Your task to perform on an android device: Open notification settings Image 0: 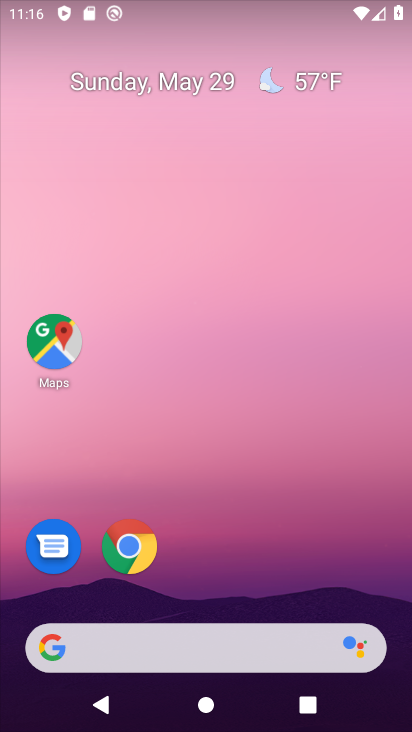
Step 0: press home button
Your task to perform on an android device: Open notification settings Image 1: 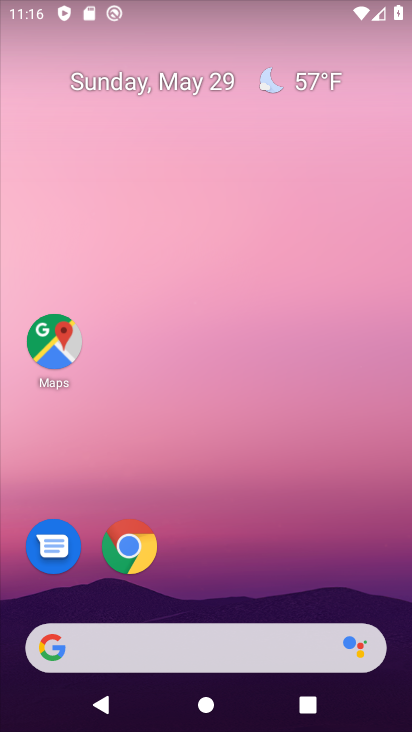
Step 1: drag from (131, 661) to (371, 8)
Your task to perform on an android device: Open notification settings Image 2: 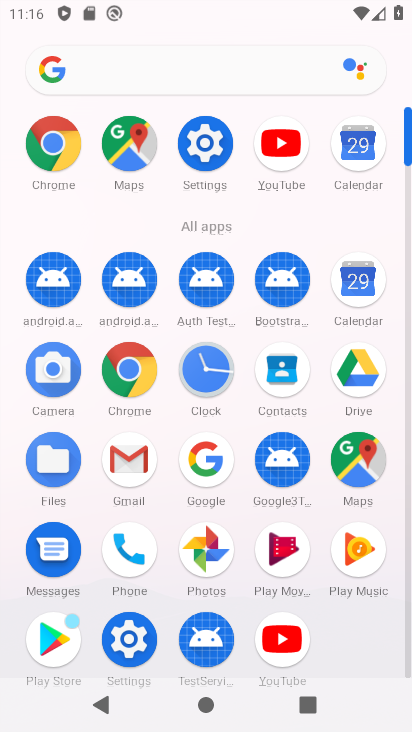
Step 2: click (208, 150)
Your task to perform on an android device: Open notification settings Image 3: 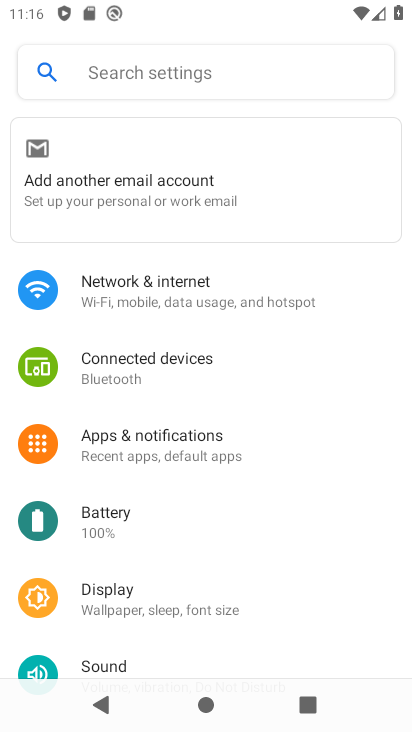
Step 3: click (197, 447)
Your task to perform on an android device: Open notification settings Image 4: 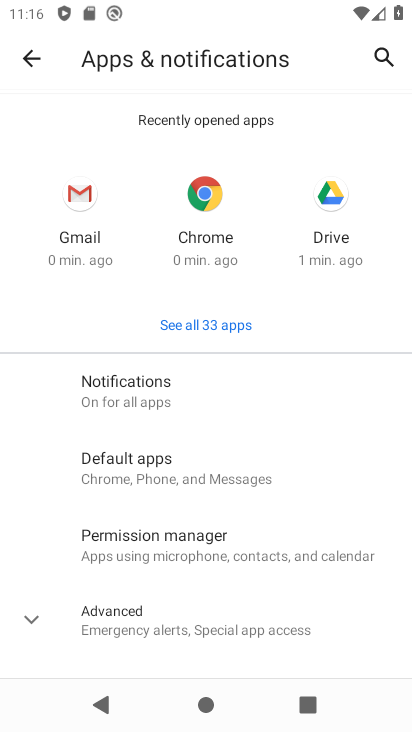
Step 4: click (156, 388)
Your task to perform on an android device: Open notification settings Image 5: 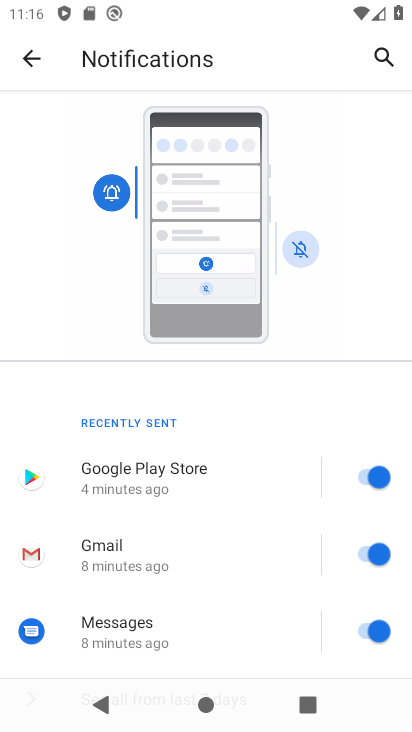
Step 5: task complete